Your task to perform on an android device: open app "Venmo" Image 0: 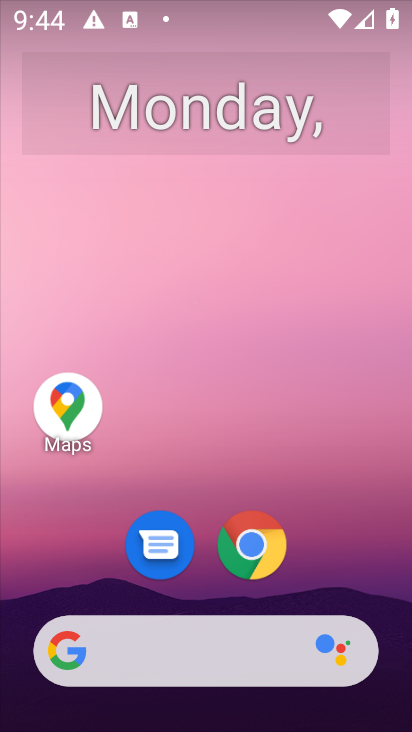
Step 0: press home button
Your task to perform on an android device: open app "Venmo" Image 1: 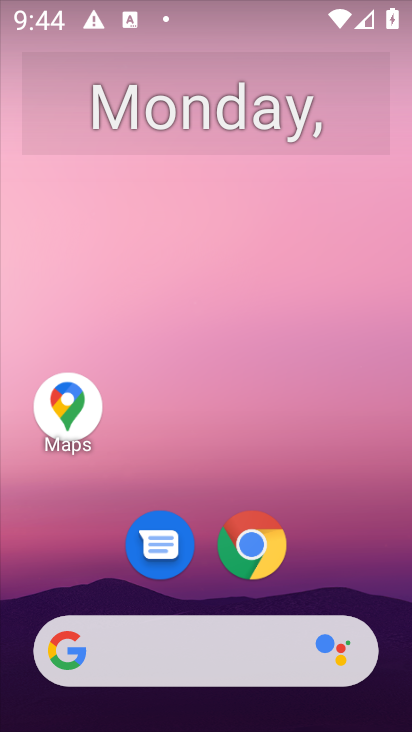
Step 1: drag from (371, 588) to (371, 73)
Your task to perform on an android device: open app "Venmo" Image 2: 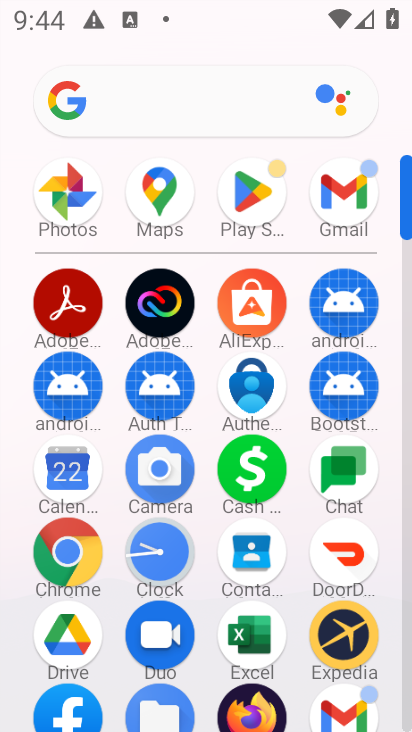
Step 2: click (255, 199)
Your task to perform on an android device: open app "Venmo" Image 3: 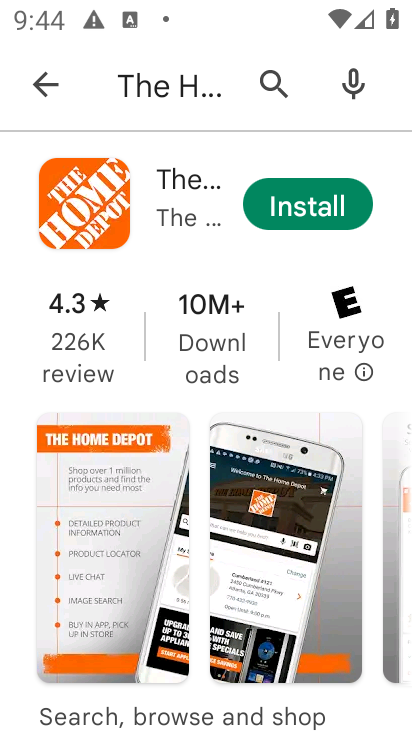
Step 3: press back button
Your task to perform on an android device: open app "Venmo" Image 4: 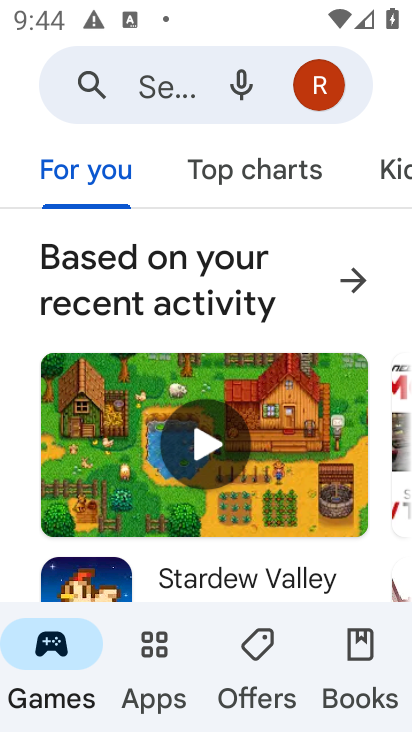
Step 4: click (135, 81)
Your task to perform on an android device: open app "Venmo" Image 5: 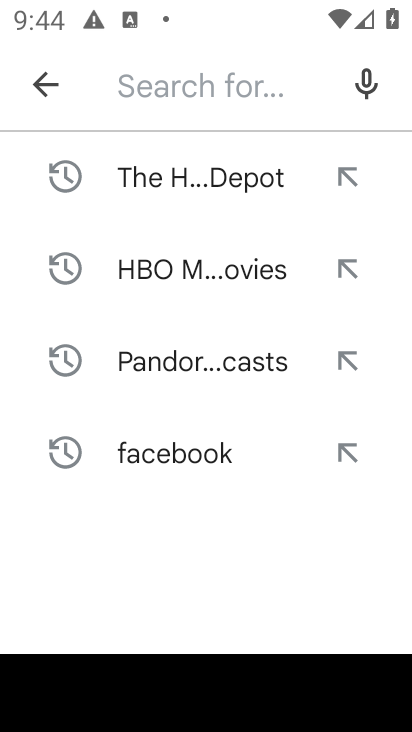
Step 5: type "venmo"
Your task to perform on an android device: open app "Venmo" Image 6: 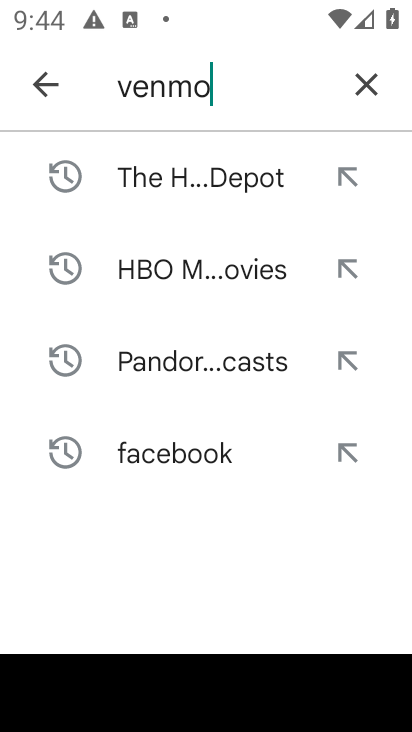
Step 6: press enter
Your task to perform on an android device: open app "Venmo" Image 7: 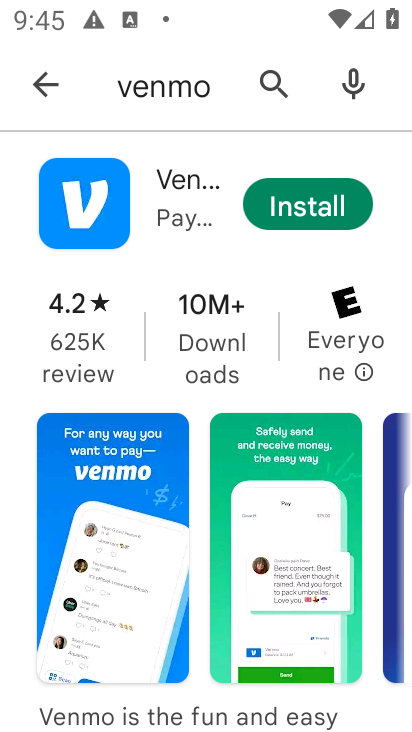
Step 7: task complete